Your task to perform on an android device: turn off picture-in-picture Image 0: 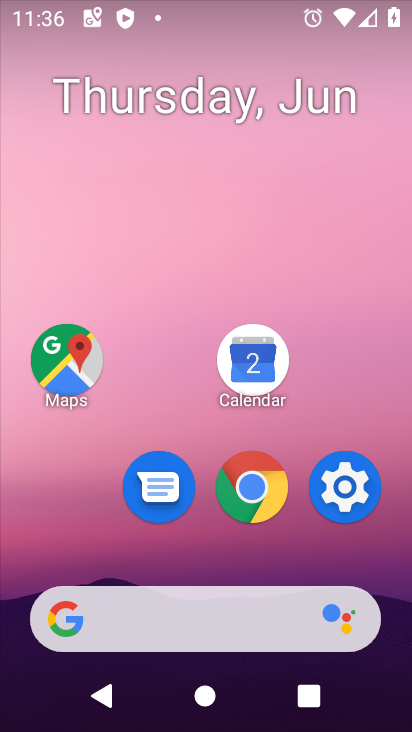
Step 0: press home button
Your task to perform on an android device: turn off picture-in-picture Image 1: 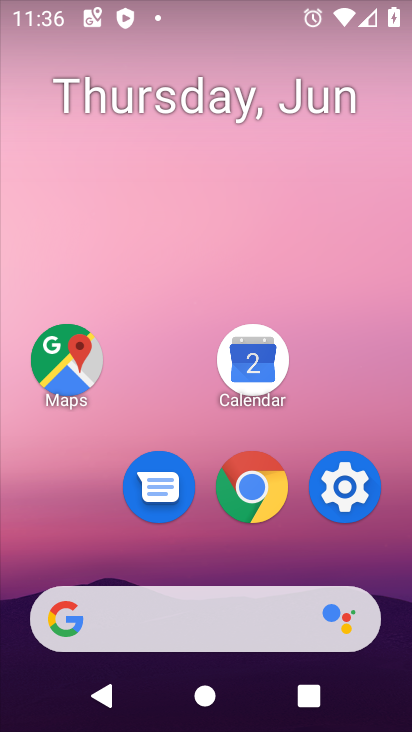
Step 1: drag from (239, 651) to (293, 0)
Your task to perform on an android device: turn off picture-in-picture Image 2: 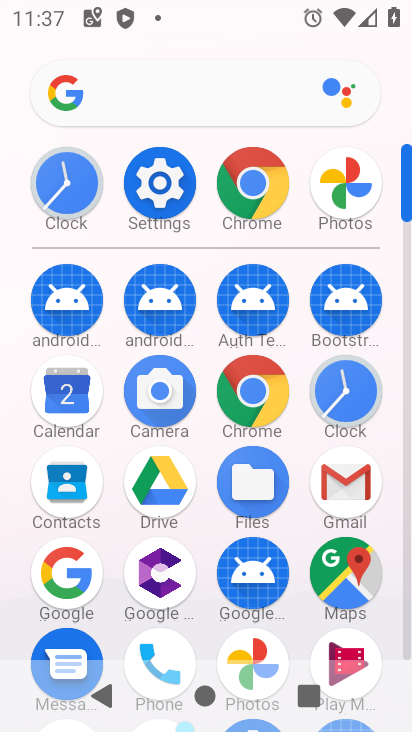
Step 2: click (177, 213)
Your task to perform on an android device: turn off picture-in-picture Image 3: 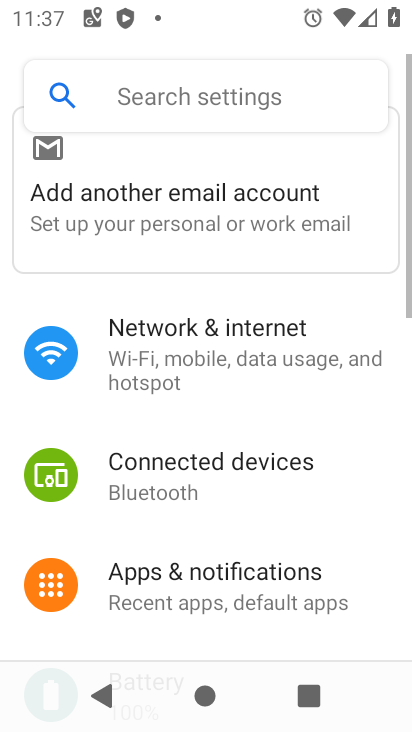
Step 3: click (164, 101)
Your task to perform on an android device: turn off picture-in-picture Image 4: 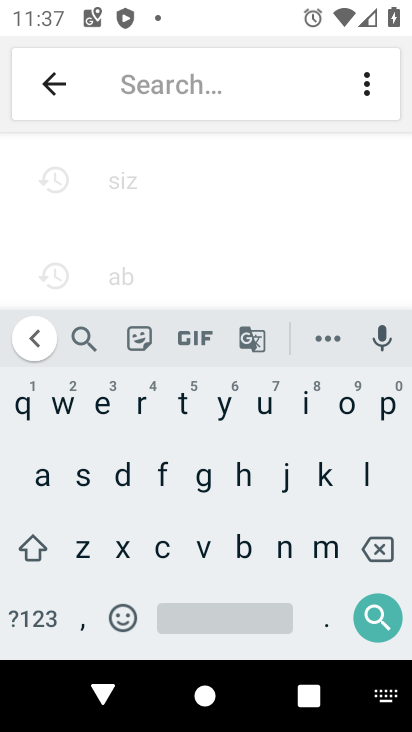
Step 4: click (383, 402)
Your task to perform on an android device: turn off picture-in-picture Image 5: 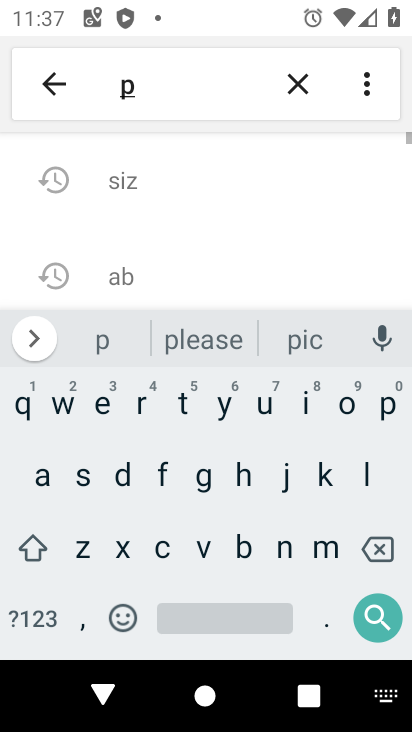
Step 5: click (302, 409)
Your task to perform on an android device: turn off picture-in-picture Image 6: 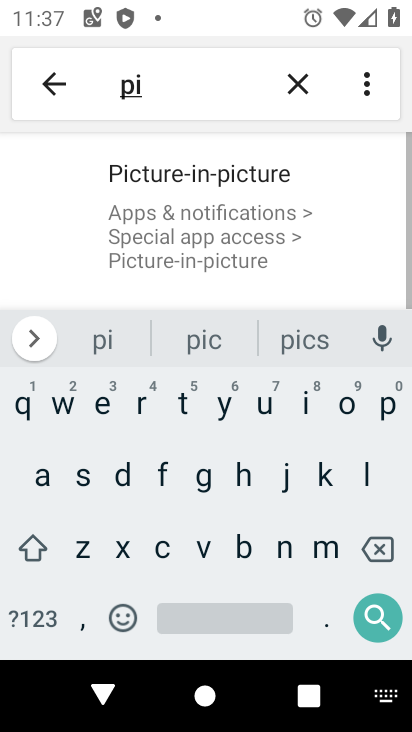
Step 6: click (161, 550)
Your task to perform on an android device: turn off picture-in-picture Image 7: 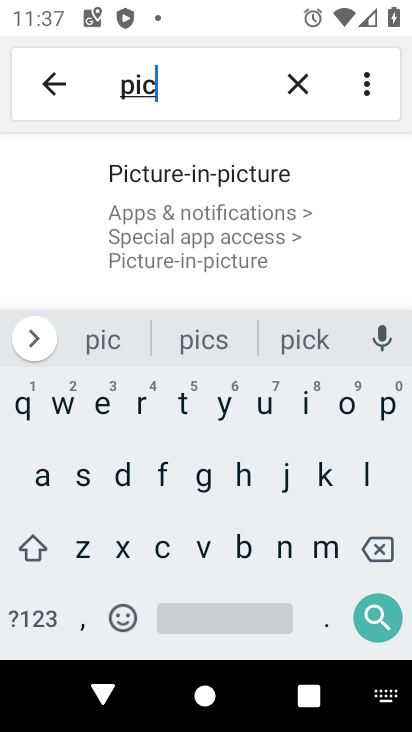
Step 7: click (255, 199)
Your task to perform on an android device: turn off picture-in-picture Image 8: 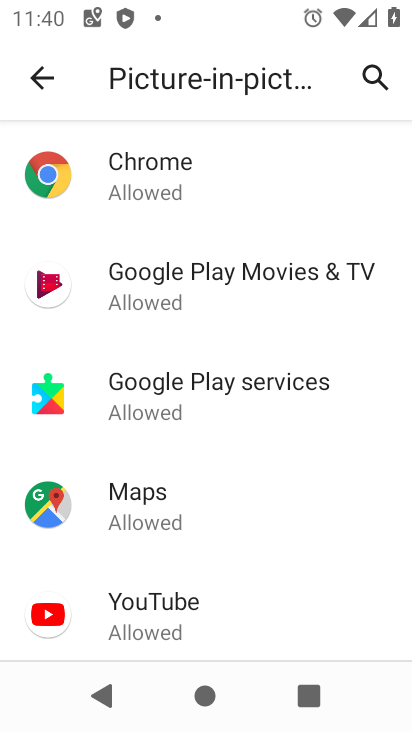
Step 8: task complete